Your task to perform on an android device: make emails show in primary in the gmail app Image 0: 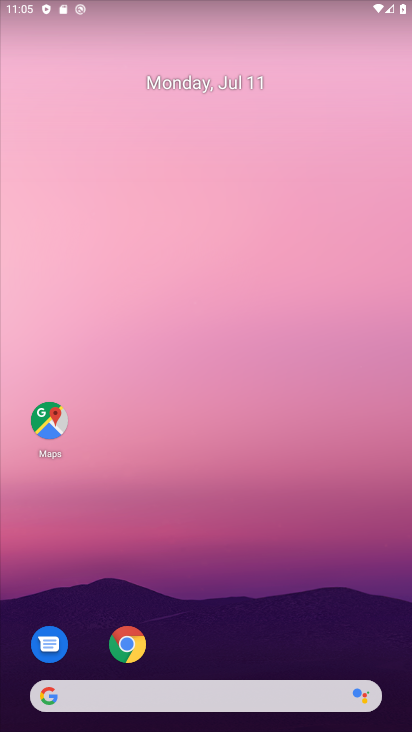
Step 0: drag from (405, 702) to (335, 81)
Your task to perform on an android device: make emails show in primary in the gmail app Image 1: 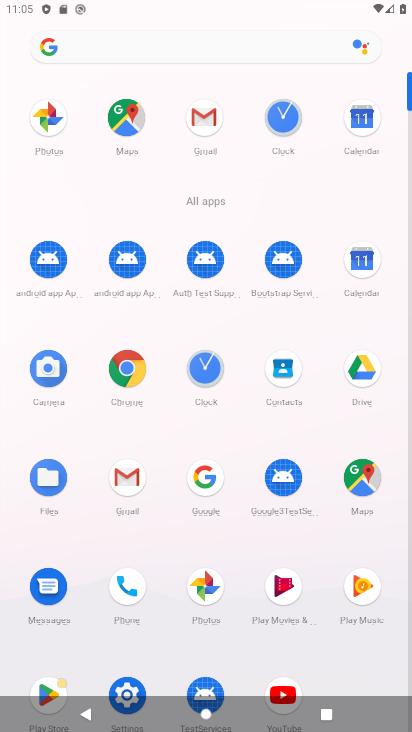
Step 1: click (131, 480)
Your task to perform on an android device: make emails show in primary in the gmail app Image 2: 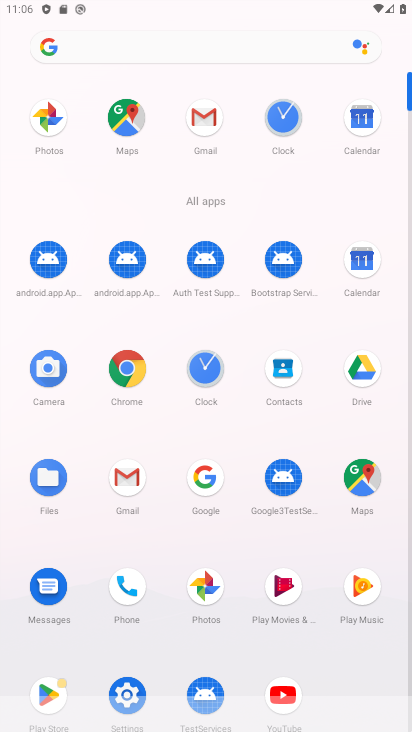
Step 2: click (129, 481)
Your task to perform on an android device: make emails show in primary in the gmail app Image 3: 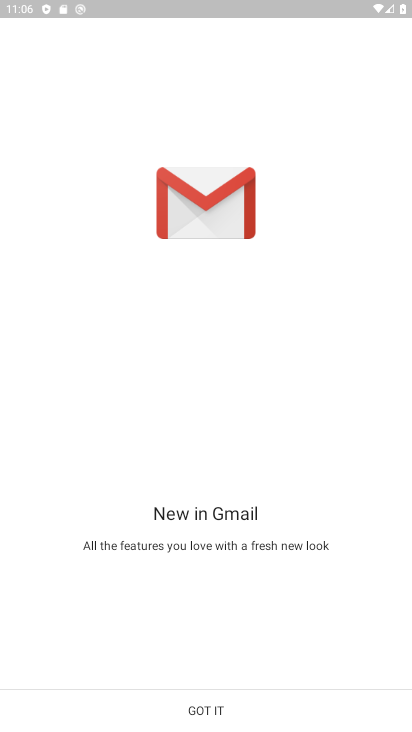
Step 3: click (132, 467)
Your task to perform on an android device: make emails show in primary in the gmail app Image 4: 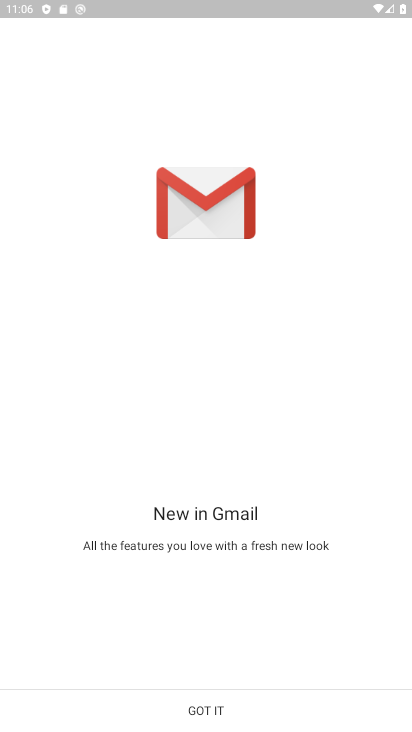
Step 4: click (218, 698)
Your task to perform on an android device: make emails show in primary in the gmail app Image 5: 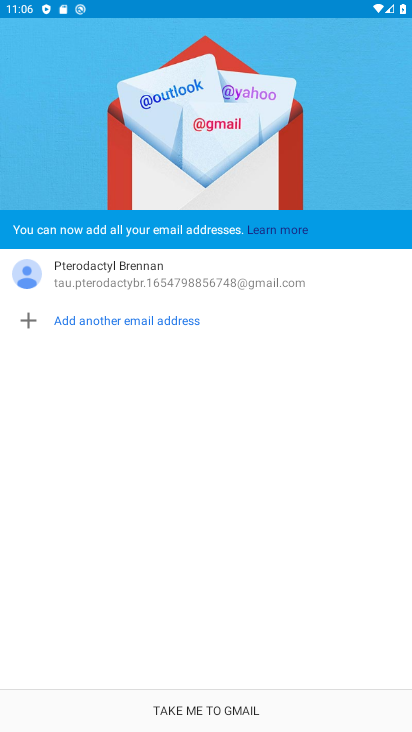
Step 5: click (217, 699)
Your task to perform on an android device: make emails show in primary in the gmail app Image 6: 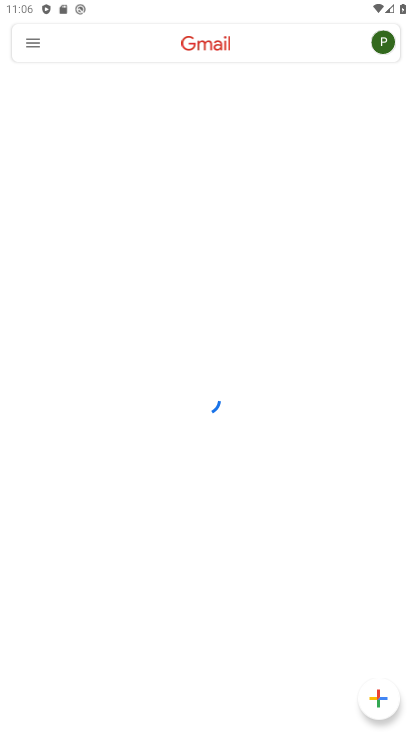
Step 6: click (23, 45)
Your task to perform on an android device: make emails show in primary in the gmail app Image 7: 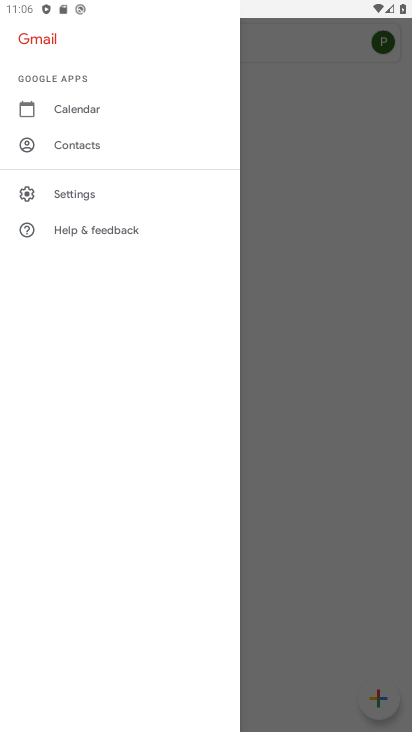
Step 7: click (66, 194)
Your task to perform on an android device: make emails show in primary in the gmail app Image 8: 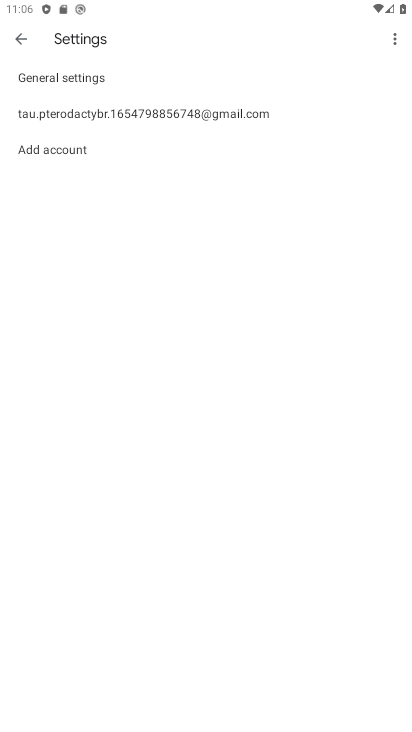
Step 8: click (61, 116)
Your task to perform on an android device: make emails show in primary in the gmail app Image 9: 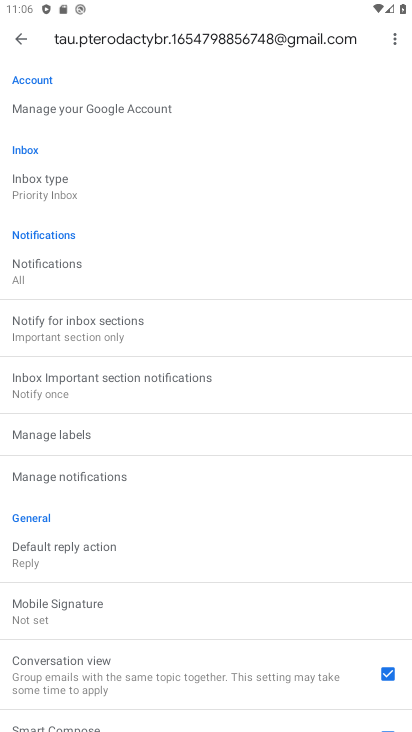
Step 9: click (45, 183)
Your task to perform on an android device: make emails show in primary in the gmail app Image 10: 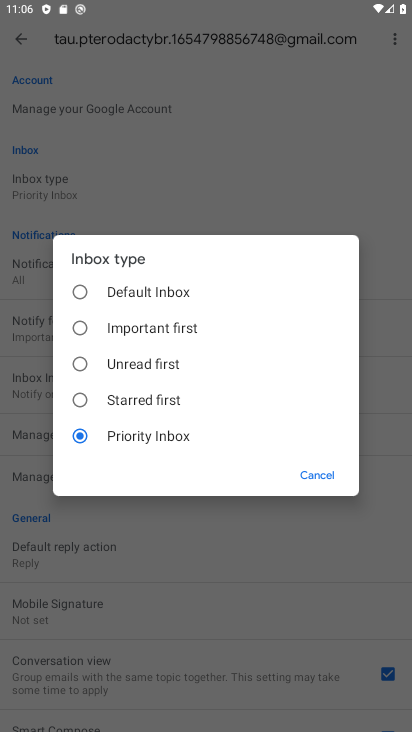
Step 10: click (113, 293)
Your task to perform on an android device: make emails show in primary in the gmail app Image 11: 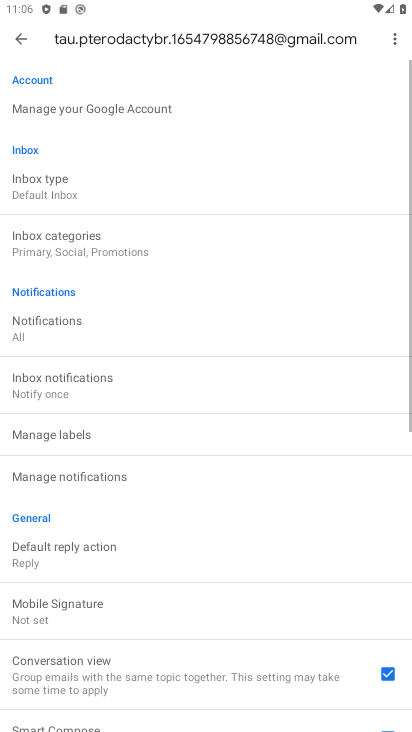
Step 11: click (62, 249)
Your task to perform on an android device: make emails show in primary in the gmail app Image 12: 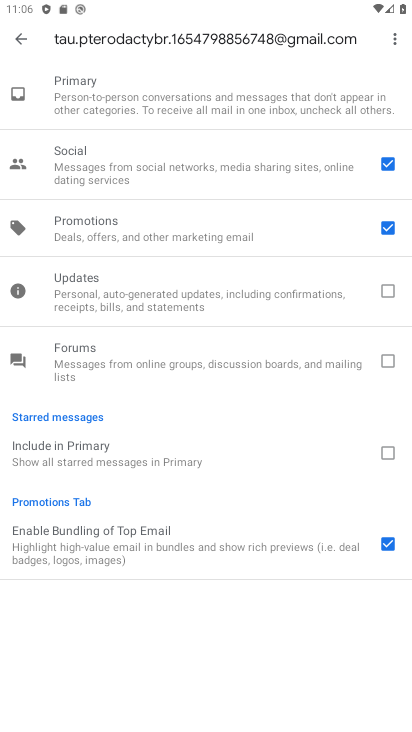
Step 12: click (390, 221)
Your task to perform on an android device: make emails show in primary in the gmail app Image 13: 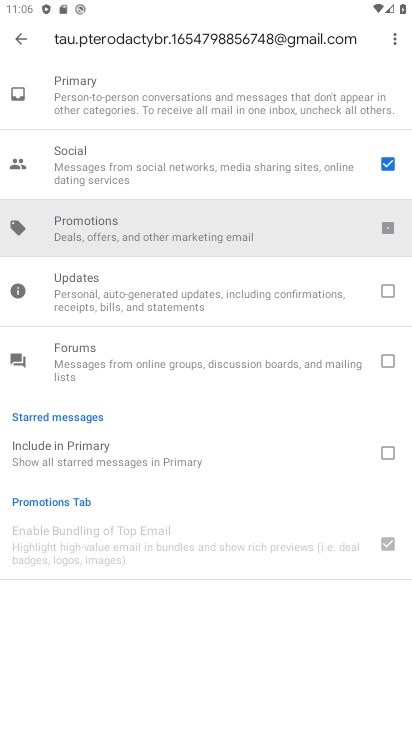
Step 13: click (387, 165)
Your task to perform on an android device: make emails show in primary in the gmail app Image 14: 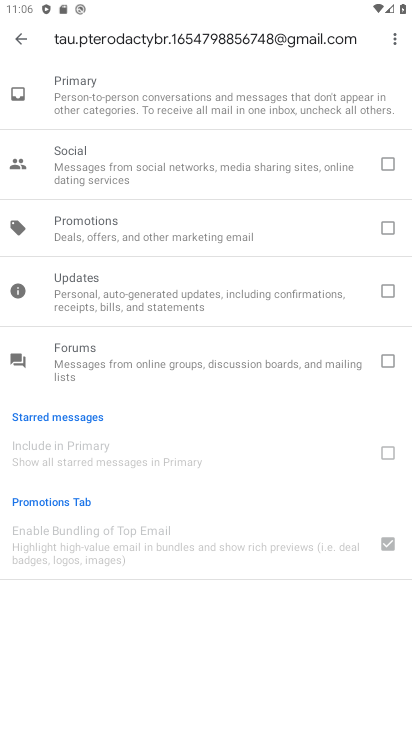
Step 14: task complete